Your task to perform on an android device: What's the weather going to be tomorrow? Image 0: 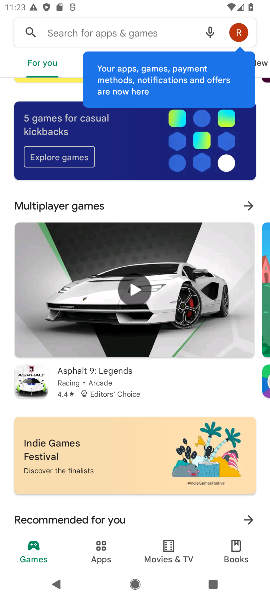
Step 0: press home button
Your task to perform on an android device: What's the weather going to be tomorrow? Image 1: 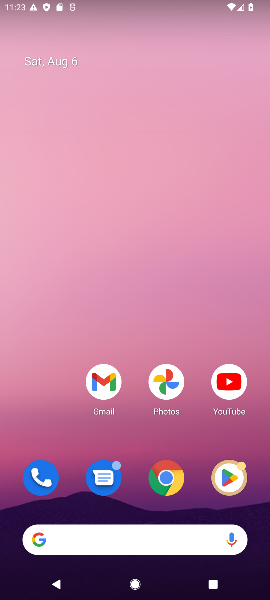
Step 1: drag from (127, 528) to (125, 256)
Your task to perform on an android device: What's the weather going to be tomorrow? Image 2: 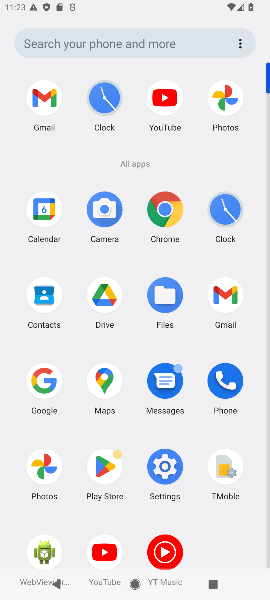
Step 2: click (38, 382)
Your task to perform on an android device: What's the weather going to be tomorrow? Image 3: 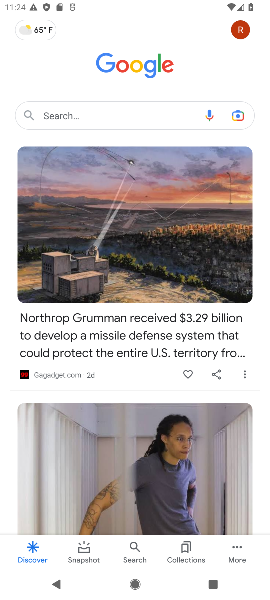
Step 3: click (113, 121)
Your task to perform on an android device: What's the weather going to be tomorrow? Image 4: 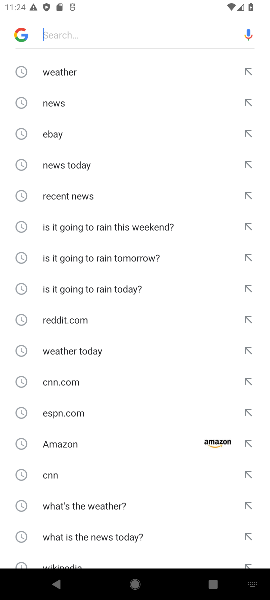
Step 4: drag from (98, 472) to (105, 248)
Your task to perform on an android device: What's the weather going to be tomorrow? Image 5: 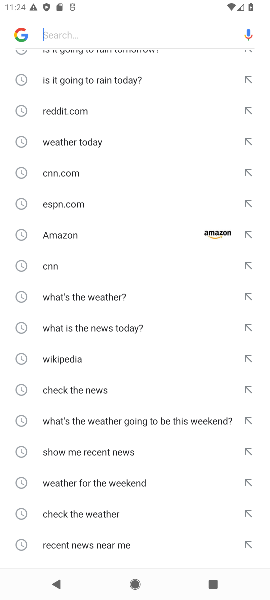
Step 5: drag from (115, 538) to (117, 231)
Your task to perform on an android device: What's the weather going to be tomorrow? Image 6: 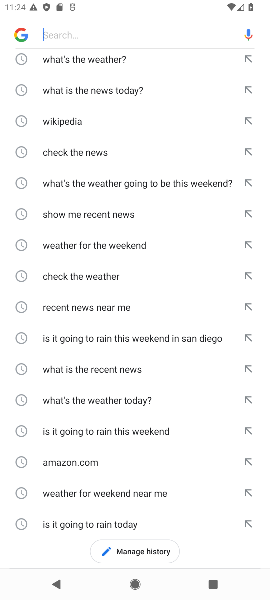
Step 6: drag from (76, 182) to (127, 479)
Your task to perform on an android device: What's the weather going to be tomorrow? Image 7: 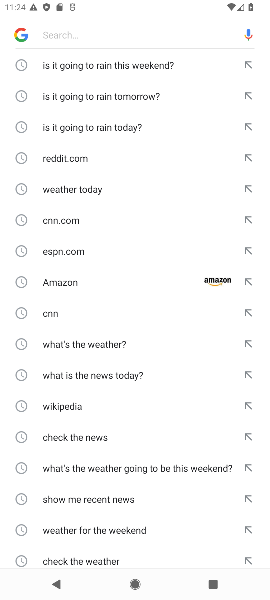
Step 7: drag from (103, 110) to (127, 364)
Your task to perform on an android device: What's the weather going to be tomorrow? Image 8: 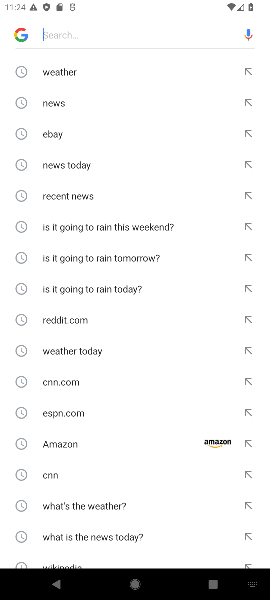
Step 8: type "What's the weather going to be tomorrow?"
Your task to perform on an android device: What's the weather going to be tomorrow? Image 9: 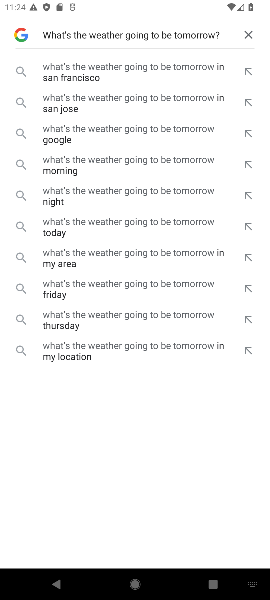
Step 9: click (121, 75)
Your task to perform on an android device: What's the weather going to be tomorrow? Image 10: 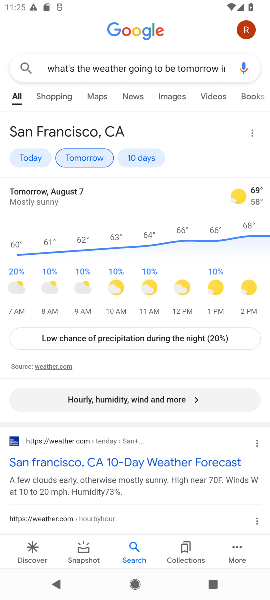
Step 10: task complete